Your task to perform on an android device: Search for "bose soundlink" on newegg, select the first entry, add it to the cart, then select checkout. Image 0: 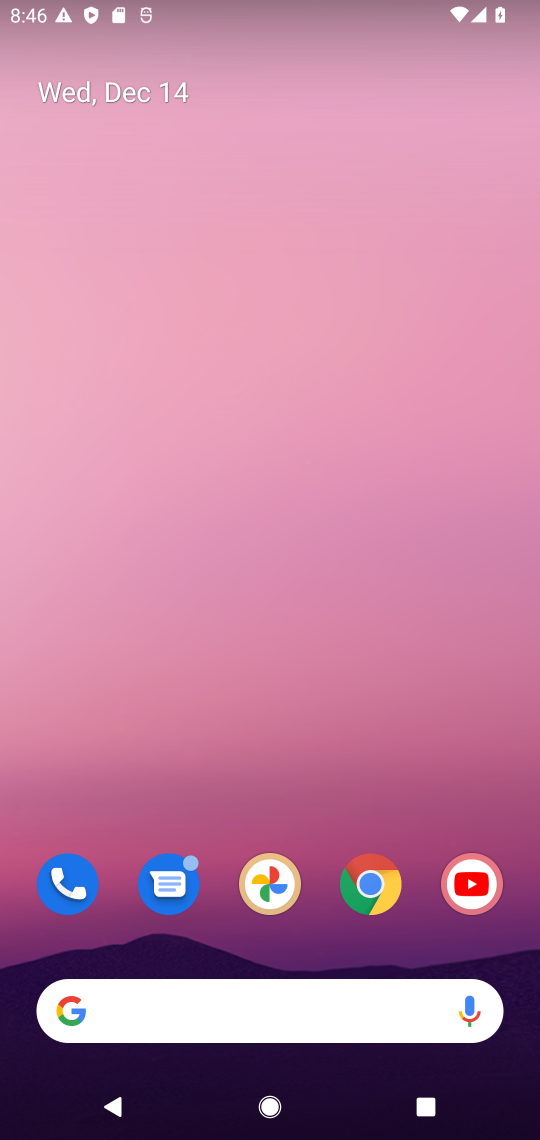
Step 0: click (364, 885)
Your task to perform on an android device: Search for "bose soundlink" on newegg, select the first entry, add it to the cart, then select checkout. Image 1: 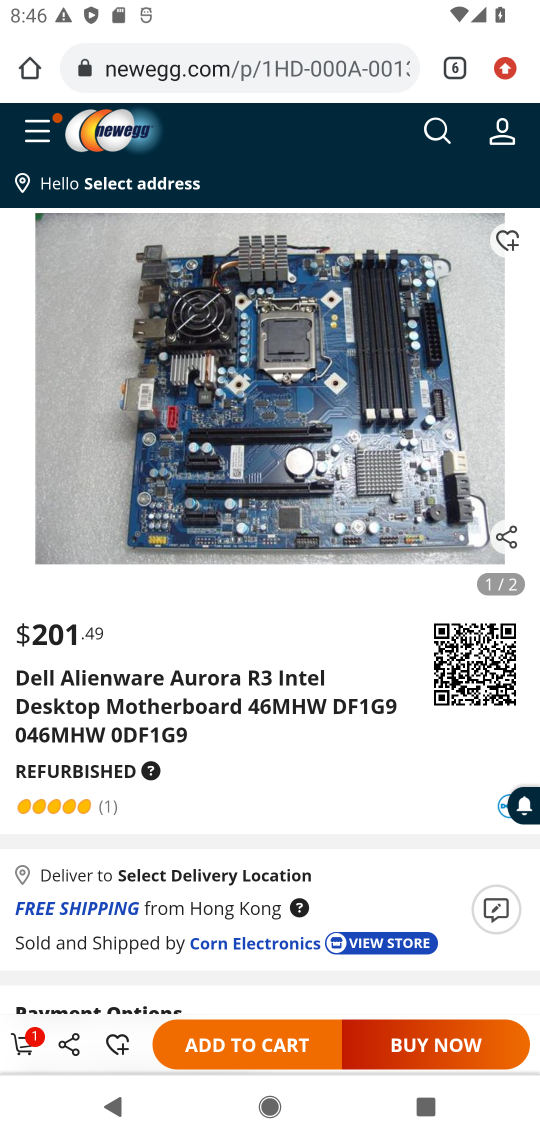
Step 1: click (438, 128)
Your task to perform on an android device: Search for "bose soundlink" on newegg, select the first entry, add it to the cart, then select checkout. Image 2: 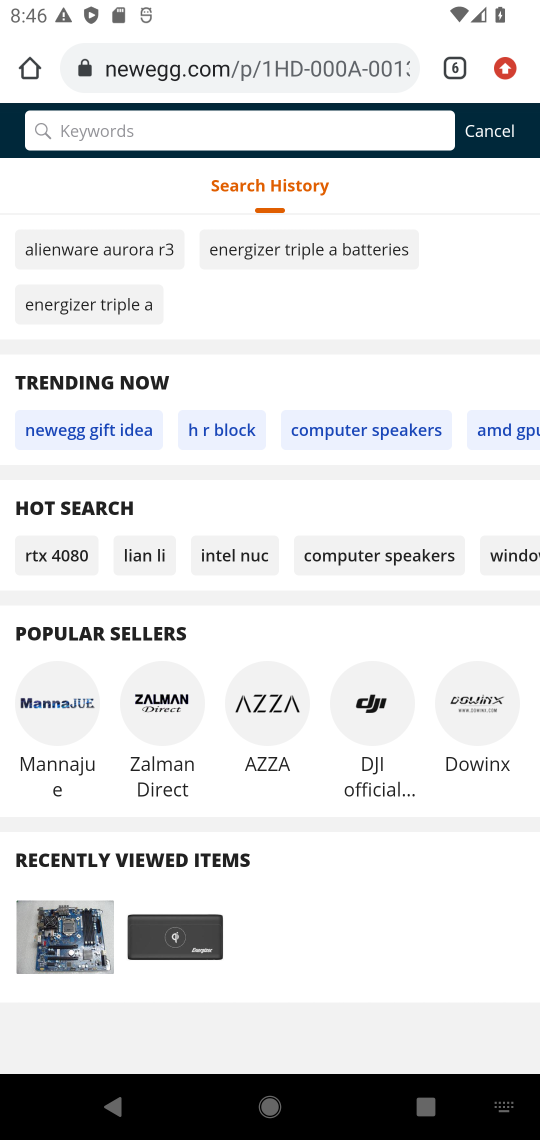
Step 2: type "bose soundlink"
Your task to perform on an android device: Search for "bose soundlink" on newegg, select the first entry, add it to the cart, then select checkout. Image 3: 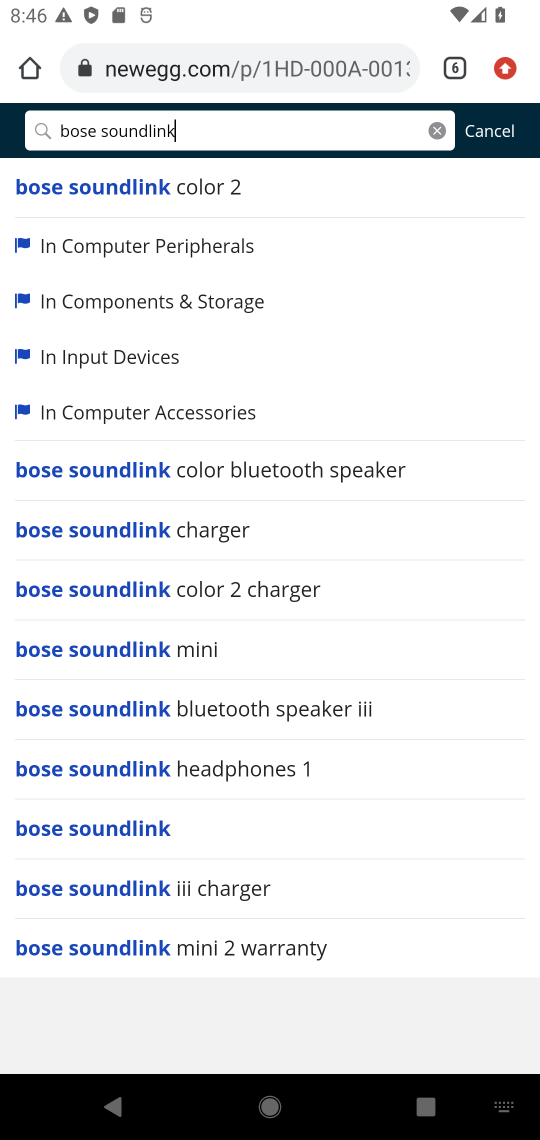
Step 3: click (116, 644)
Your task to perform on an android device: Search for "bose soundlink" on newegg, select the first entry, add it to the cart, then select checkout. Image 4: 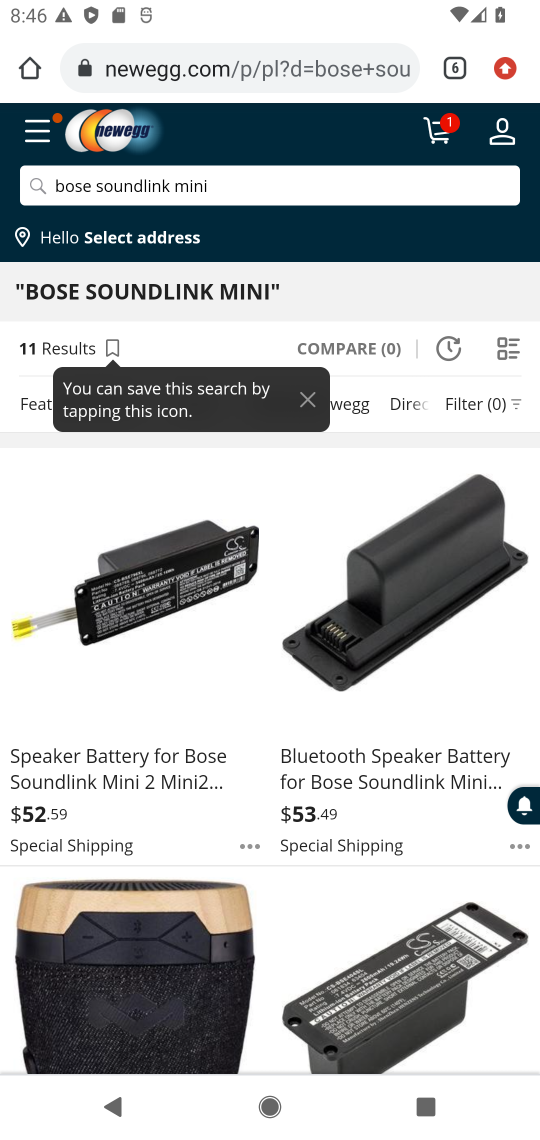
Step 4: click (191, 789)
Your task to perform on an android device: Search for "bose soundlink" on newegg, select the first entry, add it to the cart, then select checkout. Image 5: 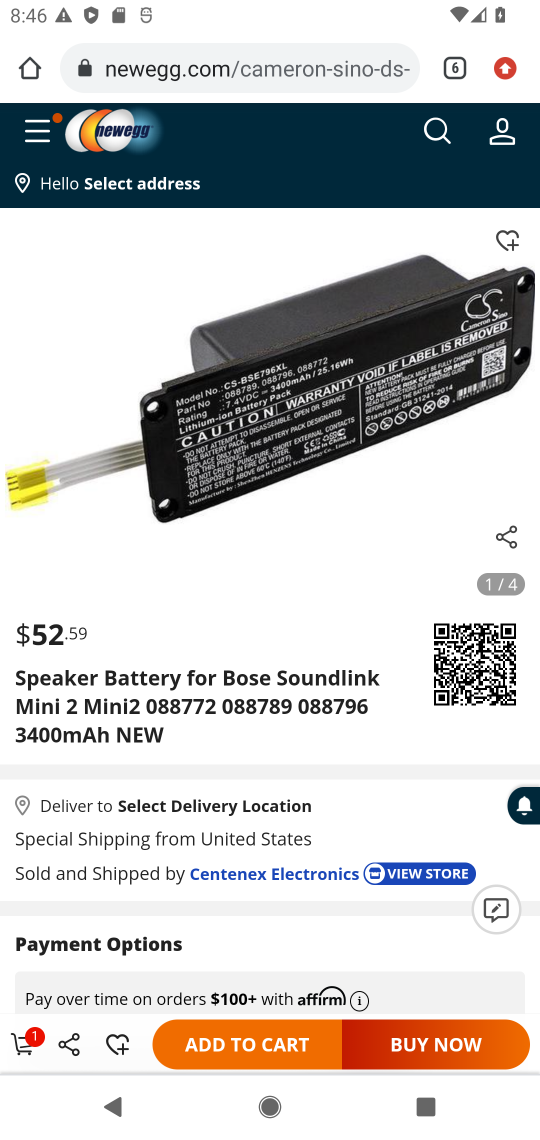
Step 5: click (285, 1053)
Your task to perform on an android device: Search for "bose soundlink" on newegg, select the first entry, add it to the cart, then select checkout. Image 6: 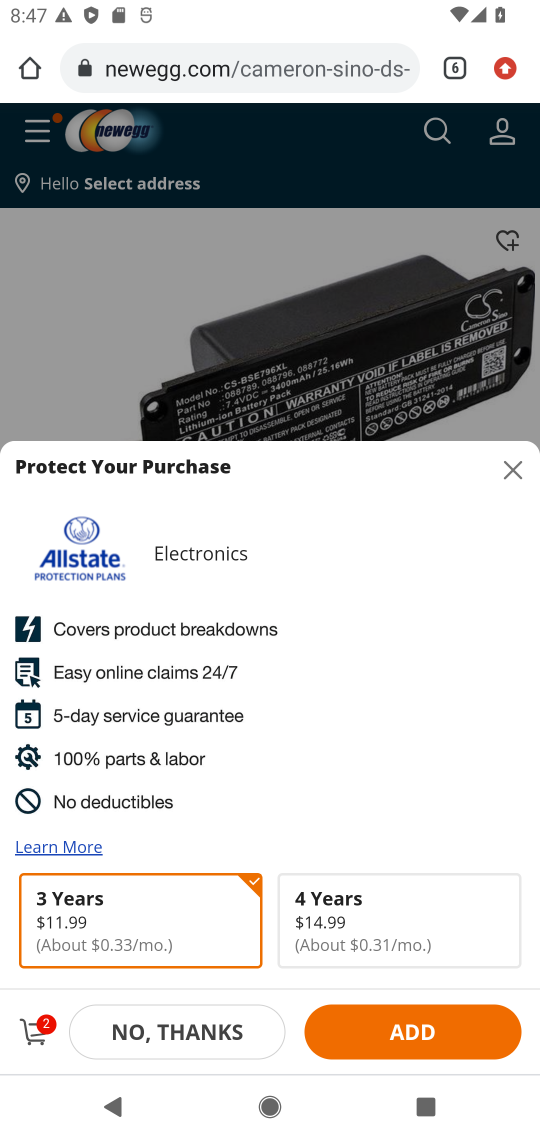
Step 6: click (143, 1032)
Your task to perform on an android device: Search for "bose soundlink" on newegg, select the first entry, add it to the cart, then select checkout. Image 7: 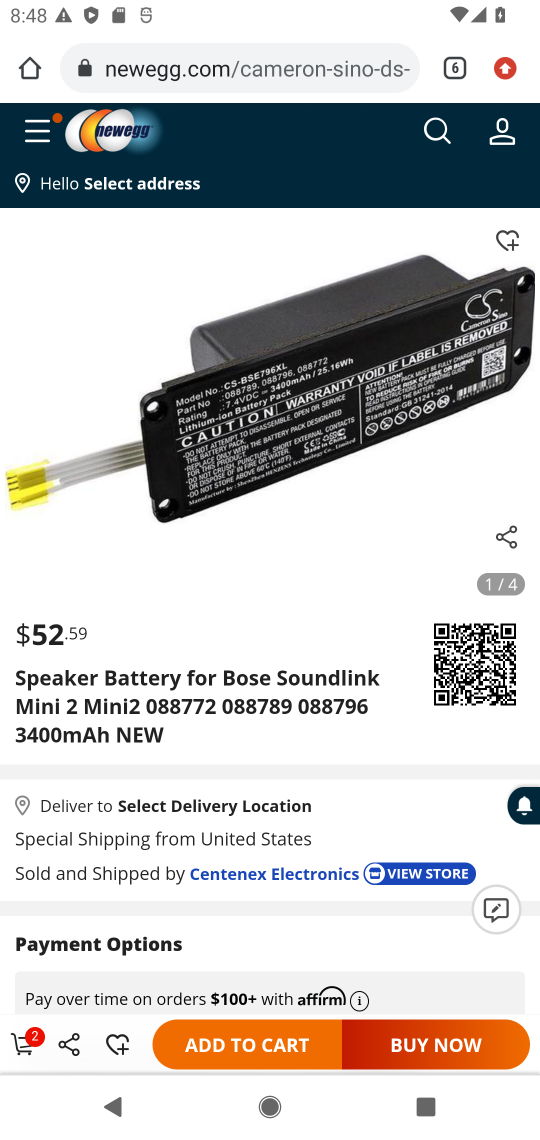
Step 7: task complete